Your task to perform on an android device: Open privacy settings Image 0: 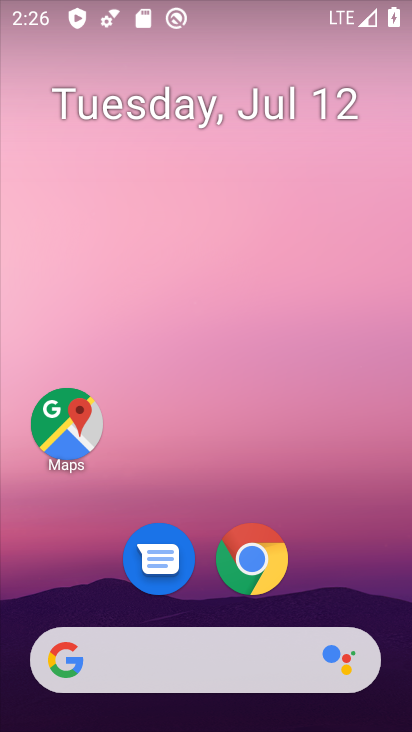
Step 0: drag from (365, 574) to (356, 214)
Your task to perform on an android device: Open privacy settings Image 1: 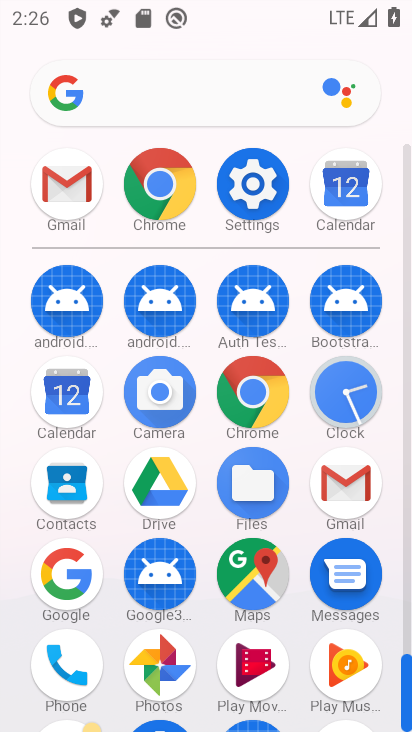
Step 1: click (268, 195)
Your task to perform on an android device: Open privacy settings Image 2: 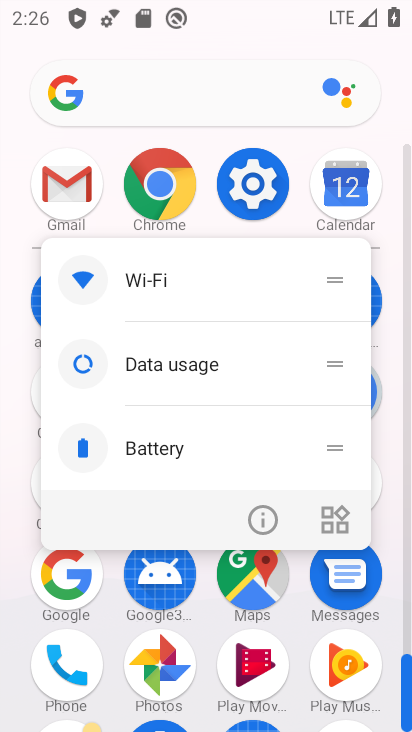
Step 2: click (268, 195)
Your task to perform on an android device: Open privacy settings Image 3: 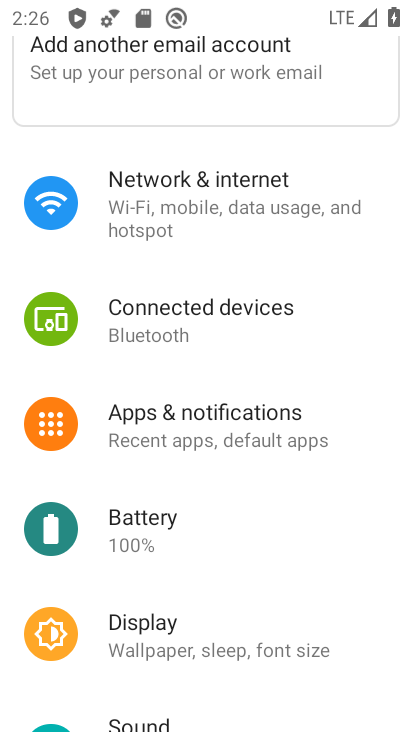
Step 3: drag from (366, 448) to (367, 341)
Your task to perform on an android device: Open privacy settings Image 4: 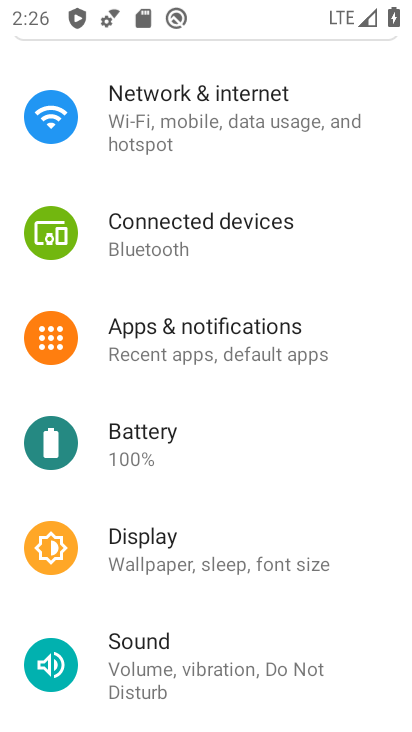
Step 4: drag from (364, 449) to (364, 354)
Your task to perform on an android device: Open privacy settings Image 5: 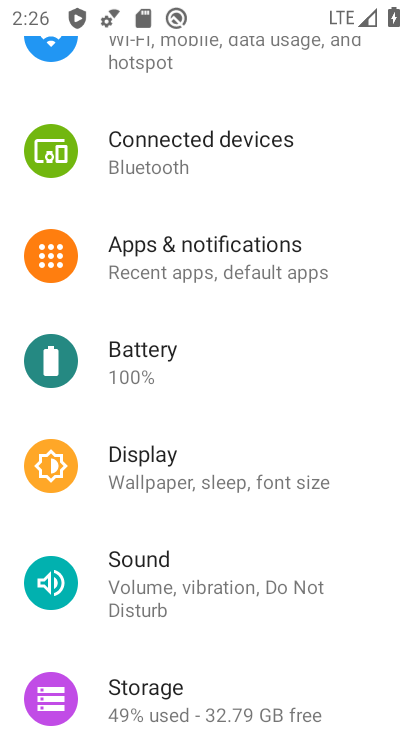
Step 5: drag from (345, 455) to (346, 350)
Your task to perform on an android device: Open privacy settings Image 6: 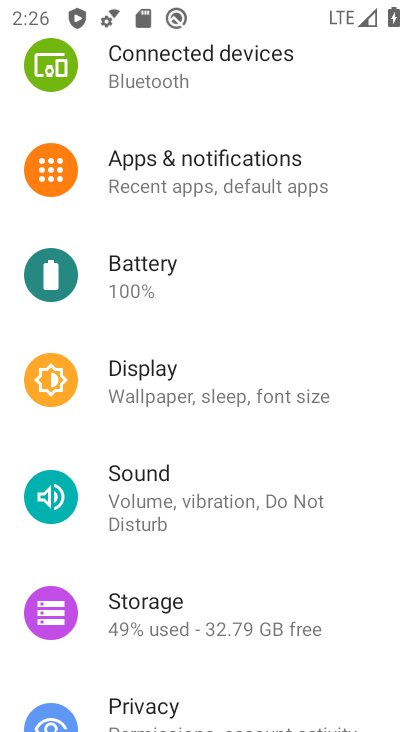
Step 6: drag from (359, 480) to (359, 387)
Your task to perform on an android device: Open privacy settings Image 7: 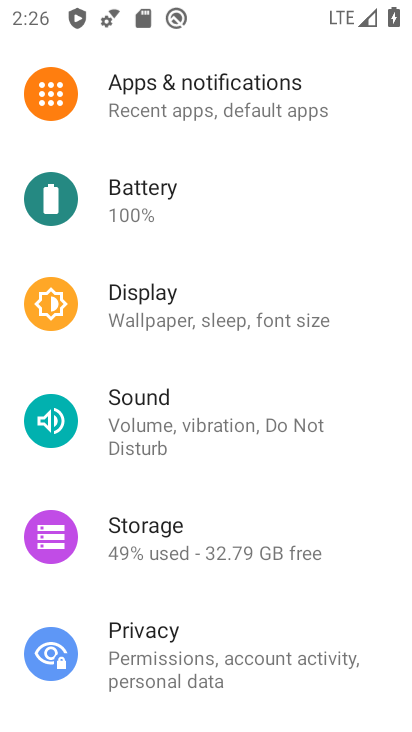
Step 7: drag from (360, 472) to (355, 389)
Your task to perform on an android device: Open privacy settings Image 8: 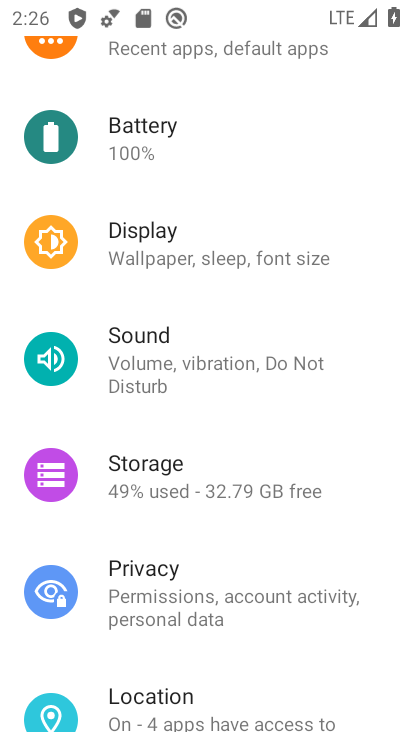
Step 8: drag from (354, 501) to (356, 405)
Your task to perform on an android device: Open privacy settings Image 9: 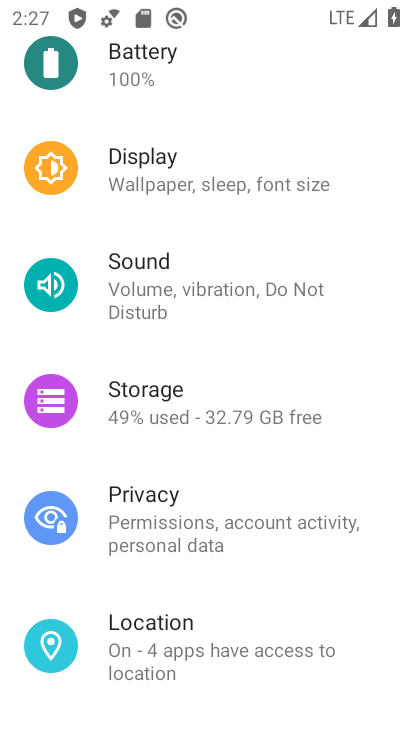
Step 9: drag from (365, 558) to (366, 420)
Your task to perform on an android device: Open privacy settings Image 10: 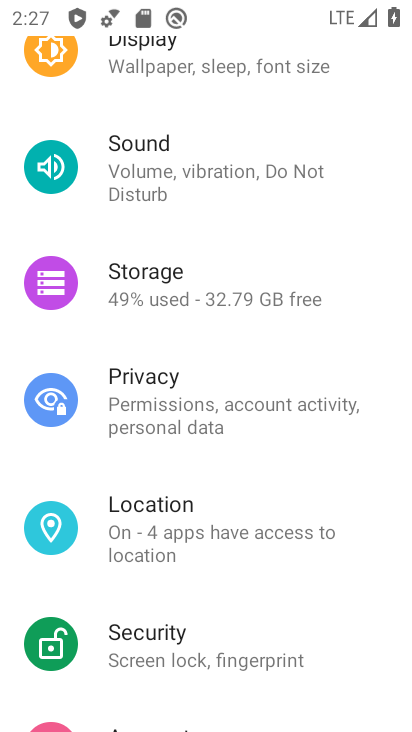
Step 10: drag from (366, 578) to (363, 452)
Your task to perform on an android device: Open privacy settings Image 11: 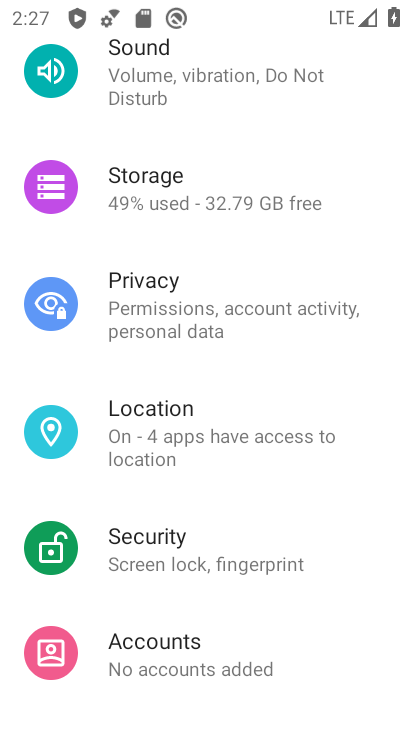
Step 11: drag from (360, 366) to (354, 457)
Your task to perform on an android device: Open privacy settings Image 12: 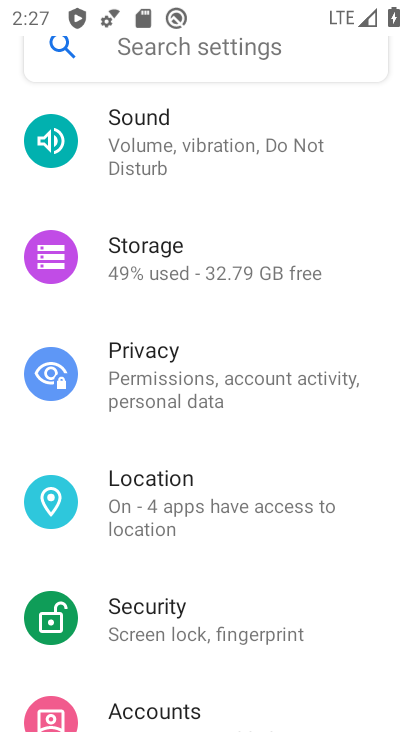
Step 12: drag from (368, 303) to (367, 441)
Your task to perform on an android device: Open privacy settings Image 13: 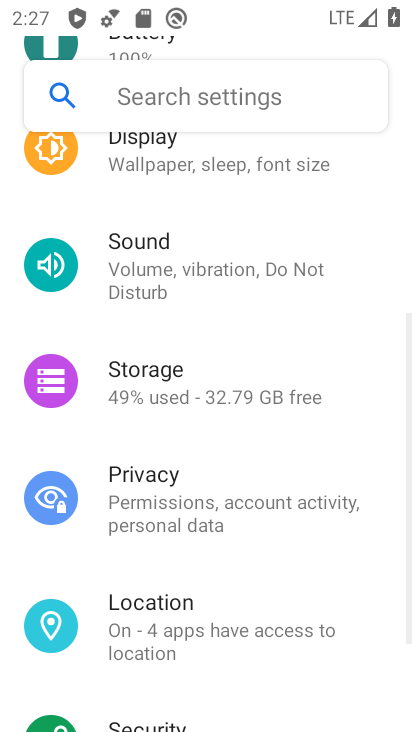
Step 13: click (297, 470)
Your task to perform on an android device: Open privacy settings Image 14: 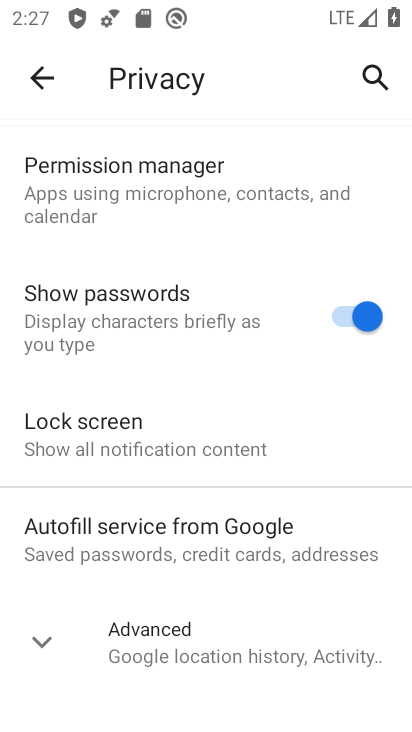
Step 14: task complete